Your task to perform on an android device: Open the calendar and show me this week's events? Image 0: 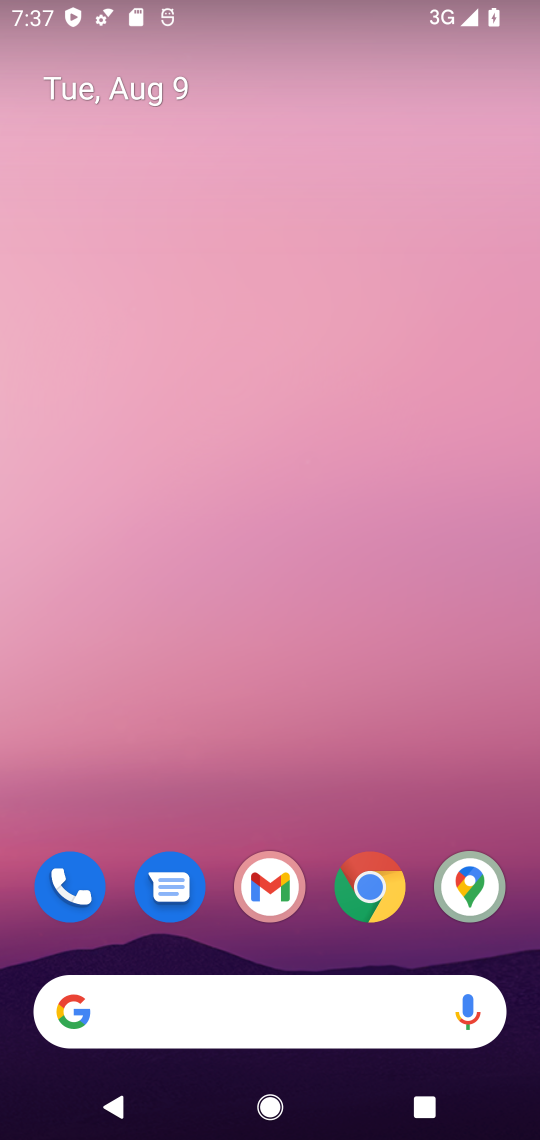
Step 0: drag from (325, 789) to (294, 12)
Your task to perform on an android device: Open the calendar and show me this week's events? Image 1: 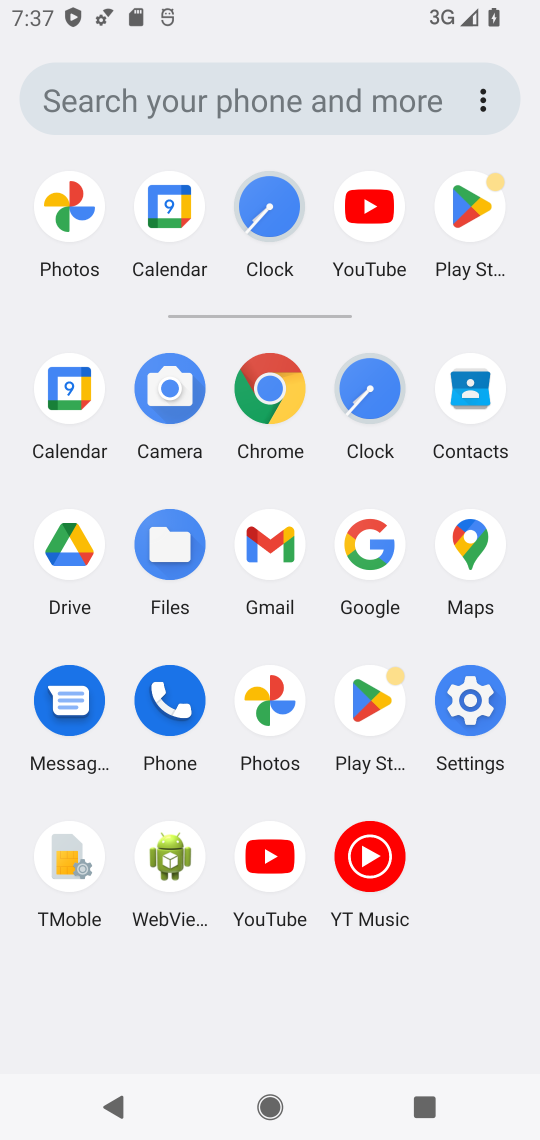
Step 1: click (176, 195)
Your task to perform on an android device: Open the calendar and show me this week's events? Image 2: 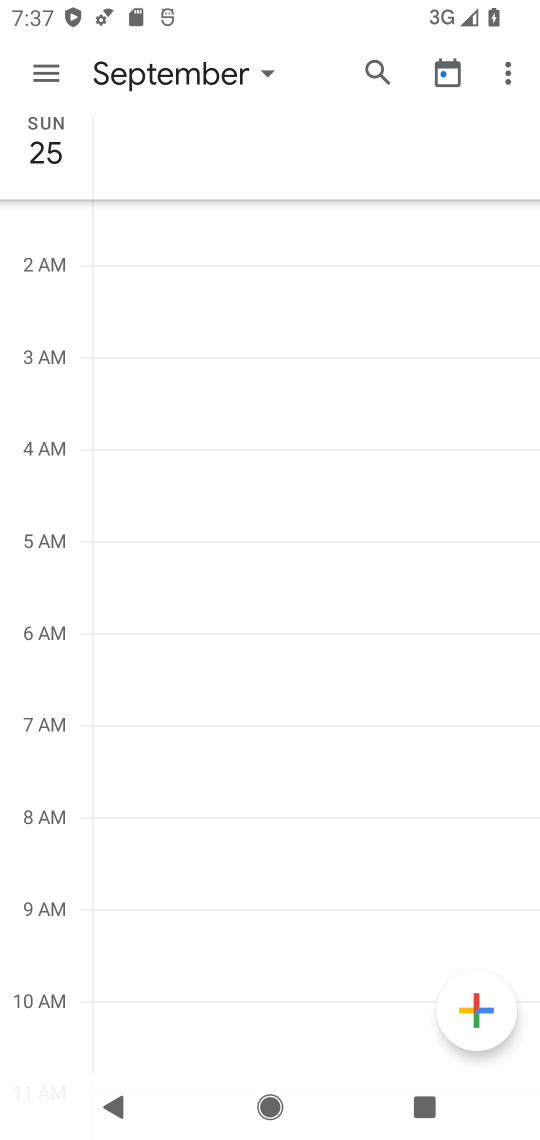
Step 2: click (43, 71)
Your task to perform on an android device: Open the calendar and show me this week's events? Image 3: 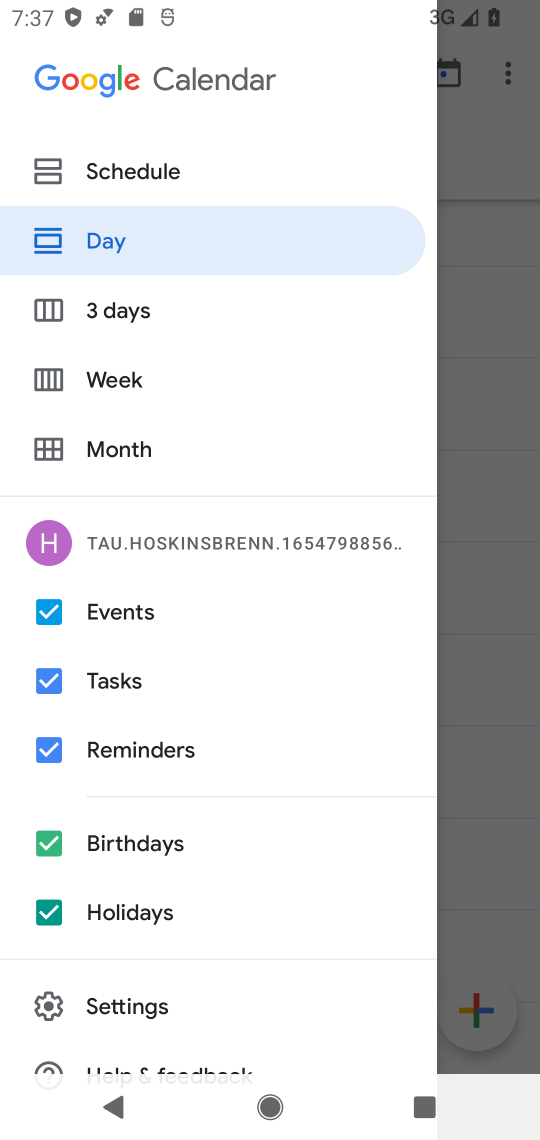
Step 3: click (107, 443)
Your task to perform on an android device: Open the calendar and show me this week's events? Image 4: 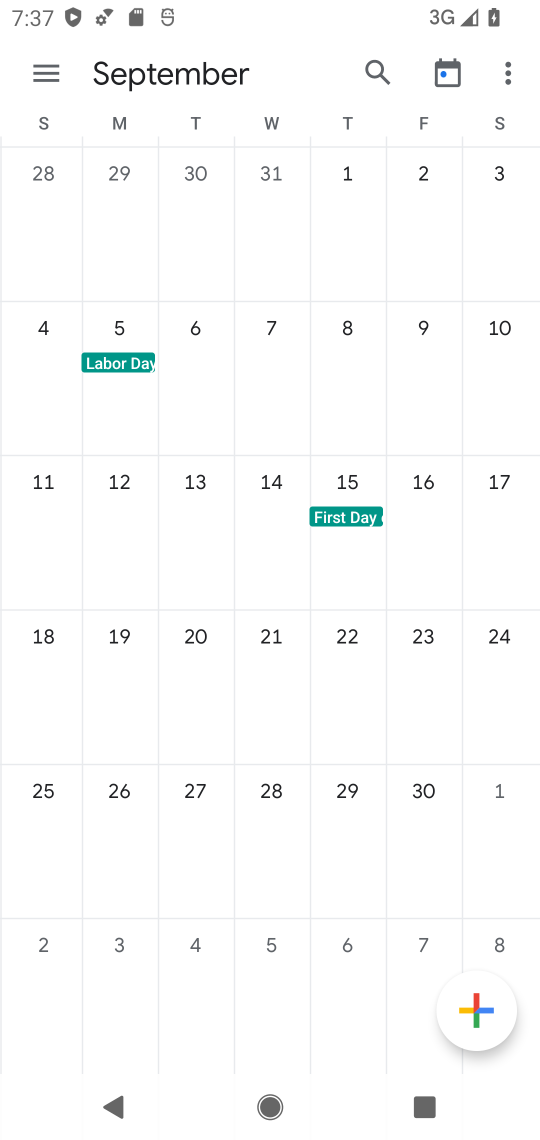
Step 4: drag from (84, 551) to (538, 528)
Your task to perform on an android device: Open the calendar and show me this week's events? Image 5: 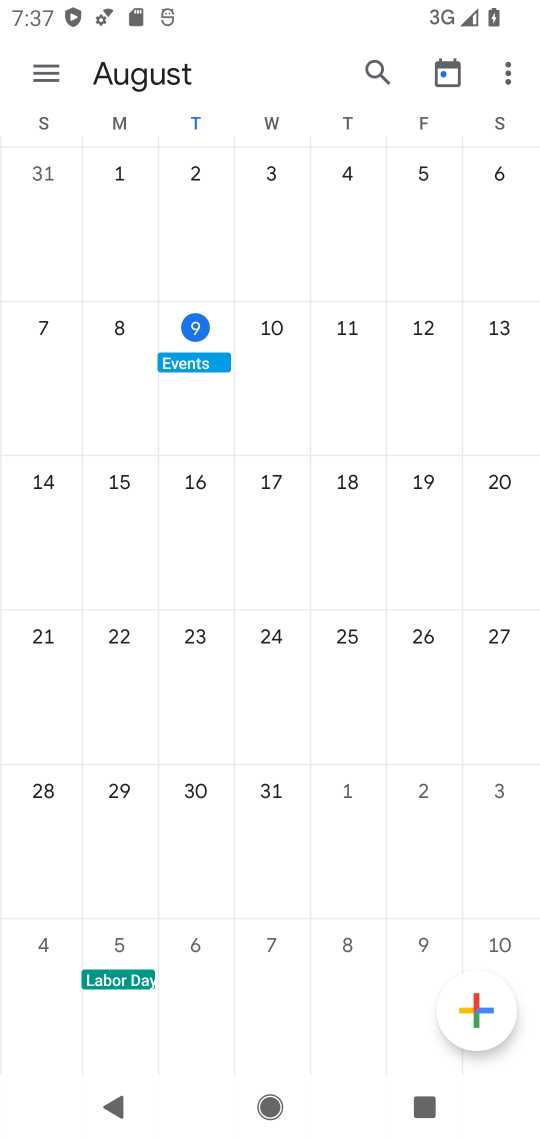
Step 5: click (191, 313)
Your task to perform on an android device: Open the calendar and show me this week's events? Image 6: 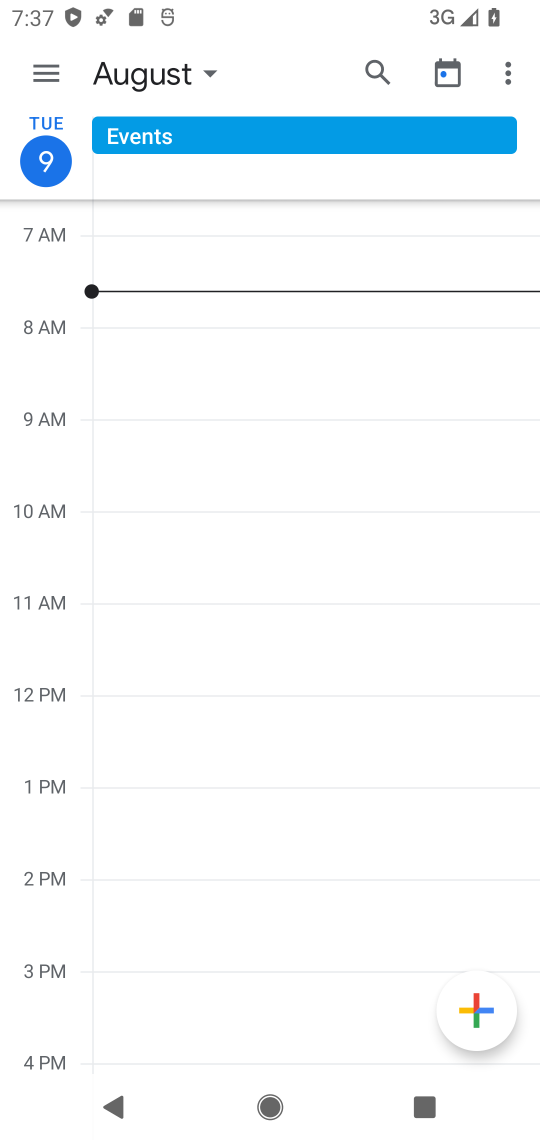
Step 6: click (50, 78)
Your task to perform on an android device: Open the calendar and show me this week's events? Image 7: 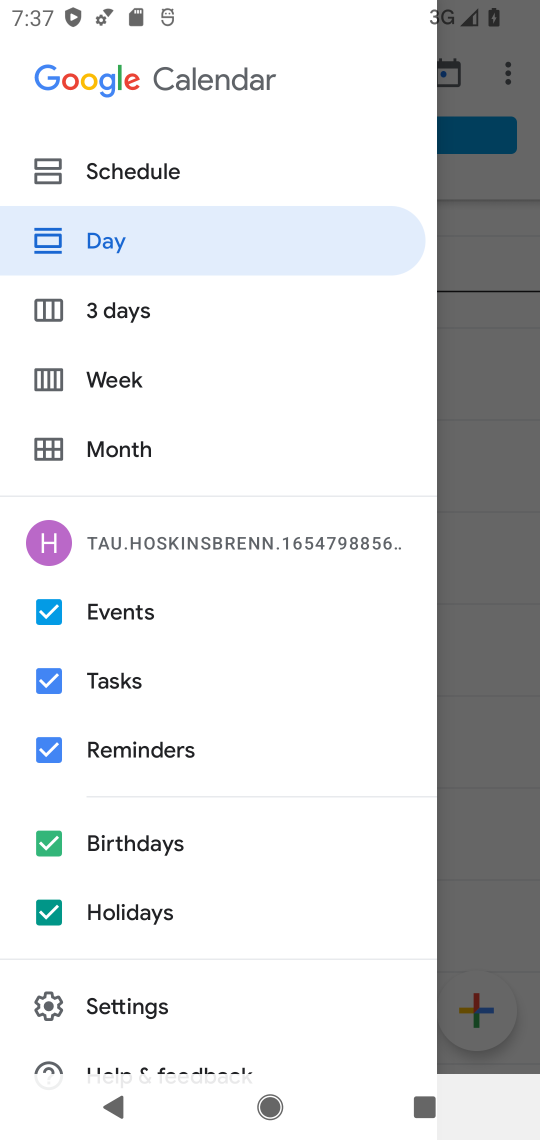
Step 7: click (61, 373)
Your task to perform on an android device: Open the calendar and show me this week's events? Image 8: 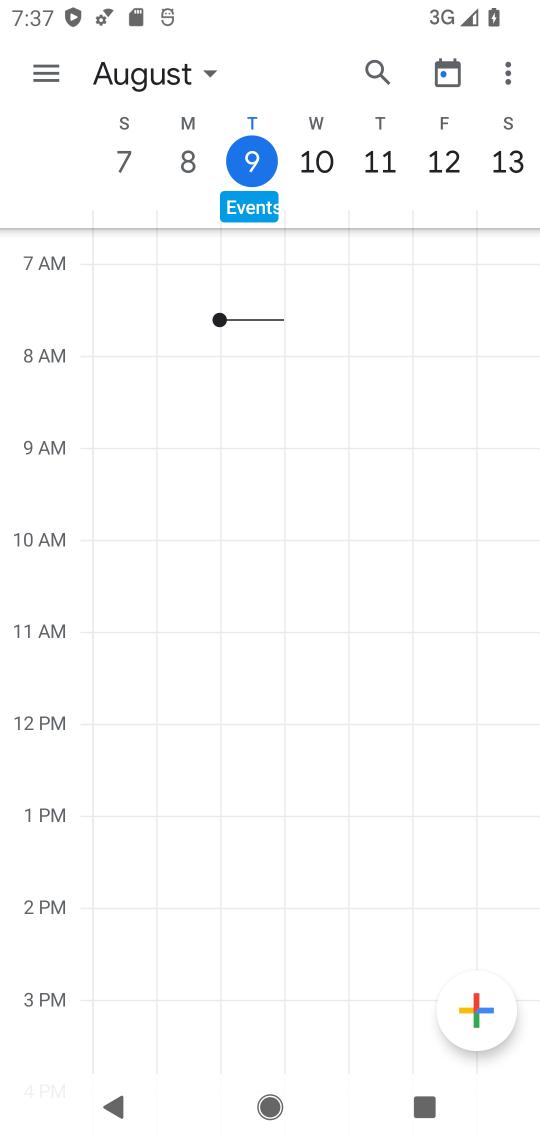
Step 8: task complete